Your task to perform on an android device: read, delete, or share a saved page in the chrome app Image 0: 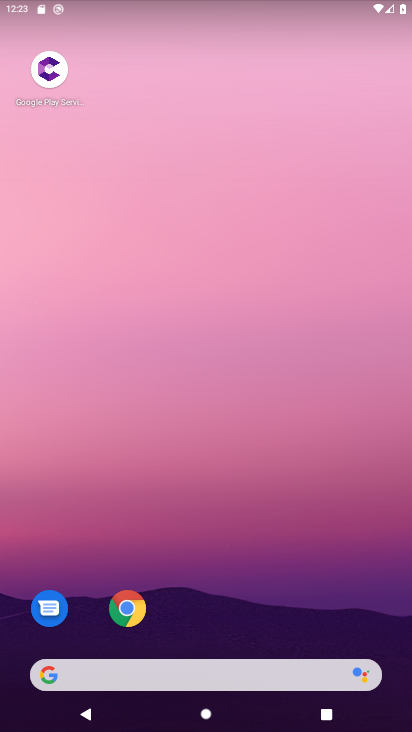
Step 0: press home button
Your task to perform on an android device: read, delete, or share a saved page in the chrome app Image 1: 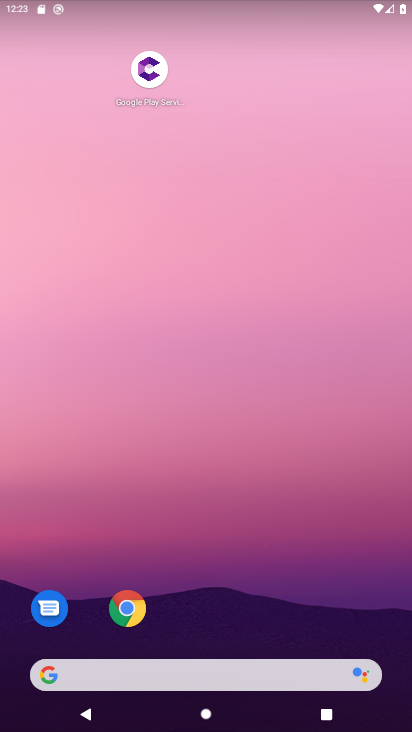
Step 1: press home button
Your task to perform on an android device: read, delete, or share a saved page in the chrome app Image 2: 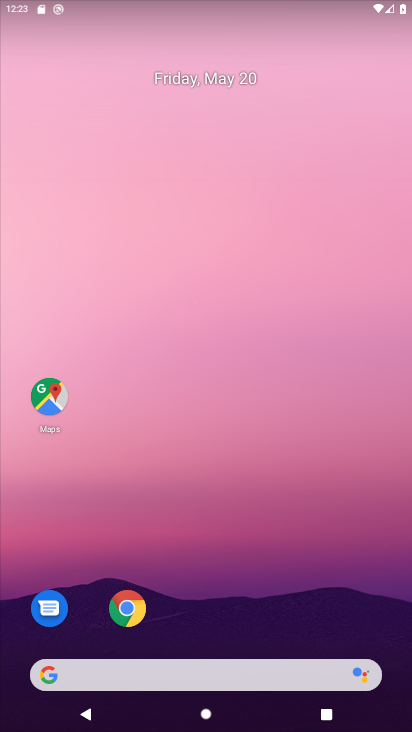
Step 2: click (126, 599)
Your task to perform on an android device: read, delete, or share a saved page in the chrome app Image 3: 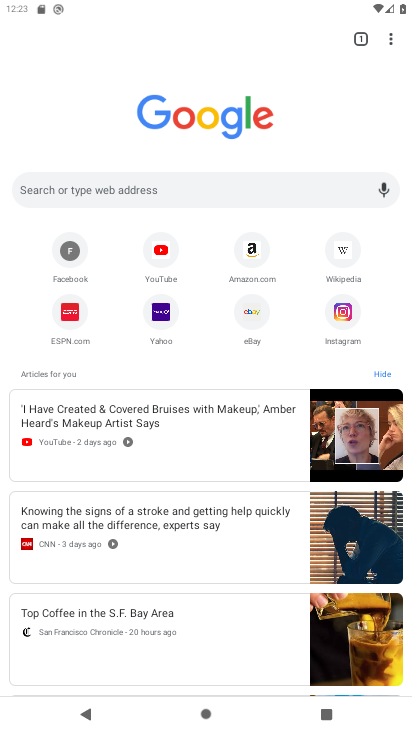
Step 3: drag from (386, 30) to (255, 254)
Your task to perform on an android device: read, delete, or share a saved page in the chrome app Image 4: 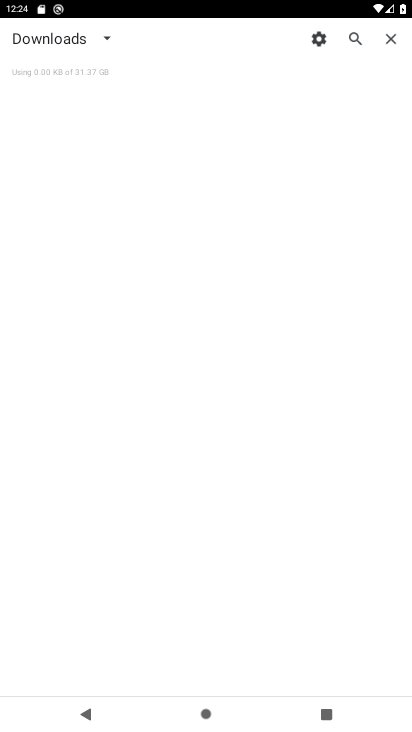
Step 4: click (112, 40)
Your task to perform on an android device: read, delete, or share a saved page in the chrome app Image 5: 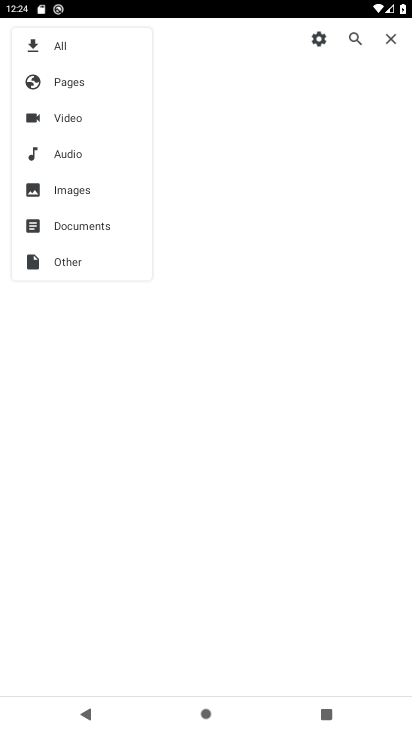
Step 5: click (84, 83)
Your task to perform on an android device: read, delete, or share a saved page in the chrome app Image 6: 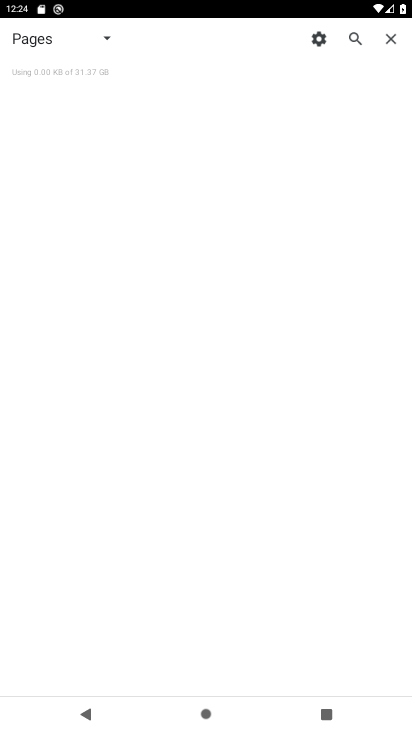
Step 6: task complete